Your task to perform on an android device: turn on priority inbox in the gmail app Image 0: 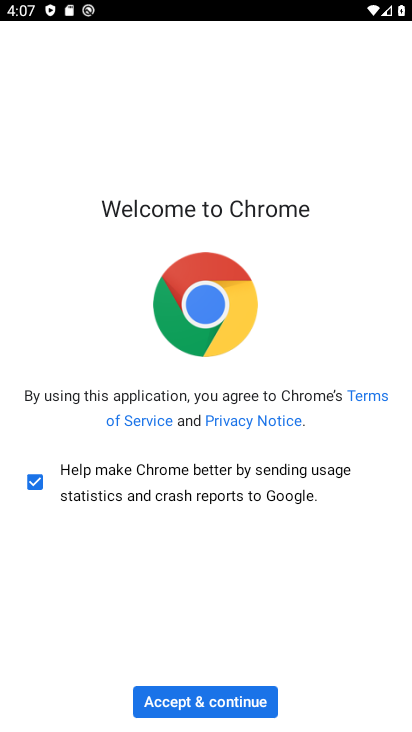
Step 0: press home button
Your task to perform on an android device: turn on priority inbox in the gmail app Image 1: 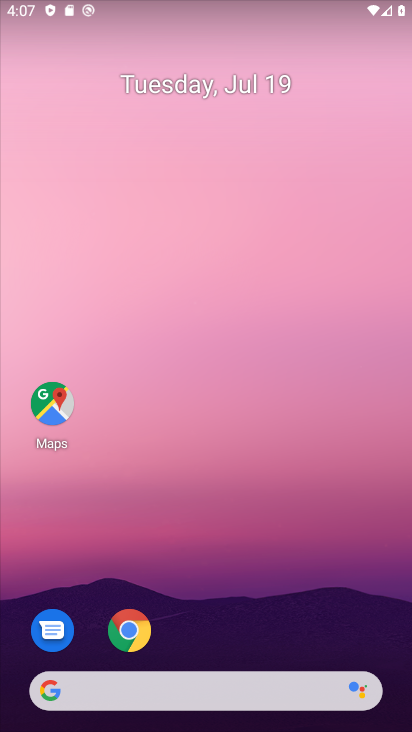
Step 1: click (194, 232)
Your task to perform on an android device: turn on priority inbox in the gmail app Image 2: 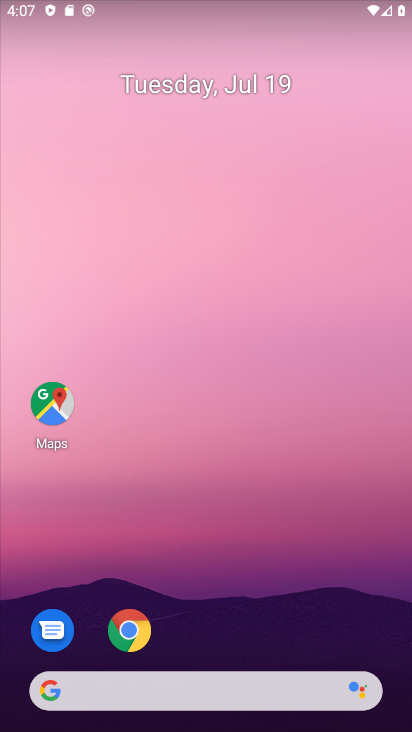
Step 2: drag from (199, 590) to (251, 20)
Your task to perform on an android device: turn on priority inbox in the gmail app Image 3: 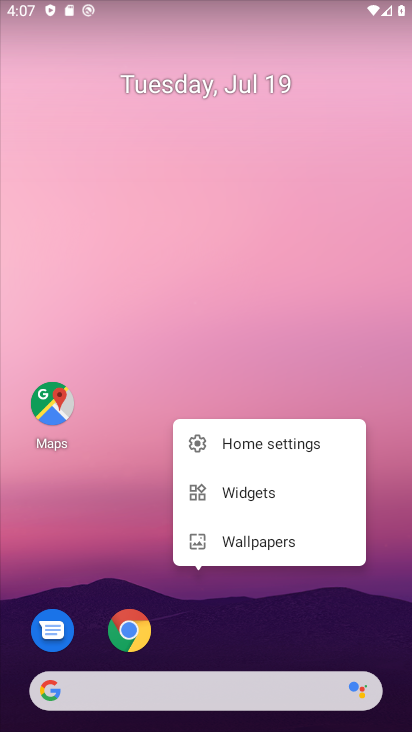
Step 3: click (203, 640)
Your task to perform on an android device: turn on priority inbox in the gmail app Image 4: 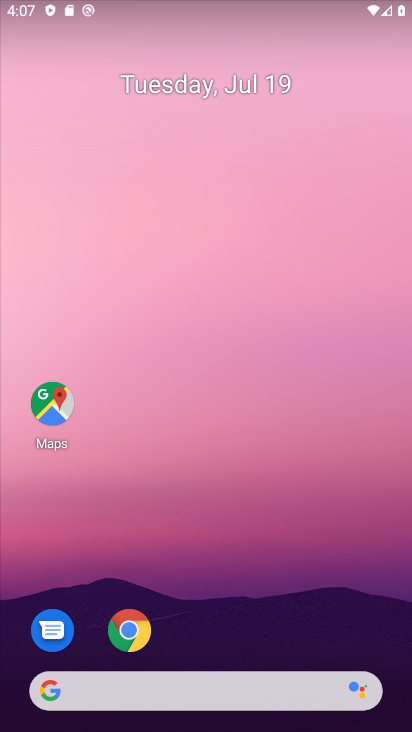
Step 4: drag from (203, 627) to (183, 294)
Your task to perform on an android device: turn on priority inbox in the gmail app Image 5: 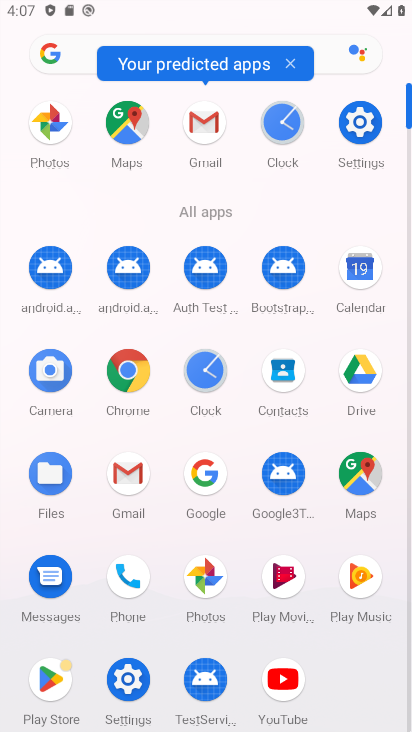
Step 5: click (124, 477)
Your task to perform on an android device: turn on priority inbox in the gmail app Image 6: 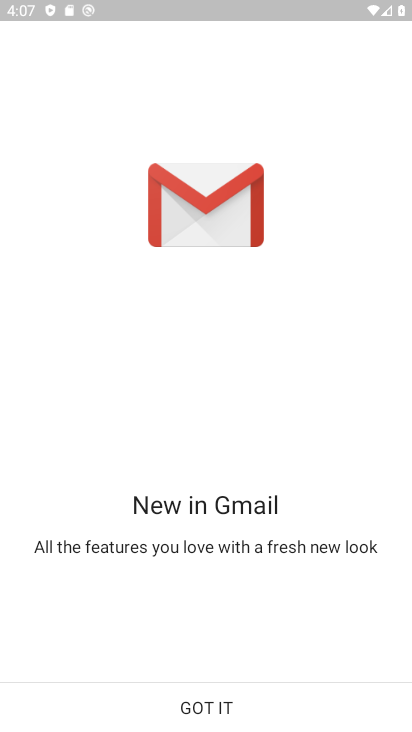
Step 6: click (191, 702)
Your task to perform on an android device: turn on priority inbox in the gmail app Image 7: 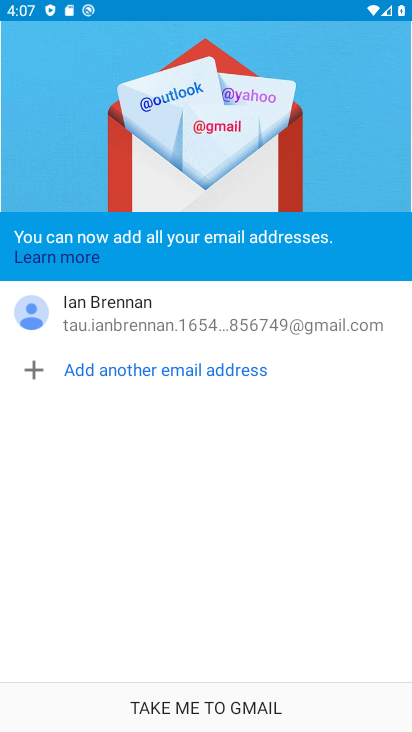
Step 7: click (191, 702)
Your task to perform on an android device: turn on priority inbox in the gmail app Image 8: 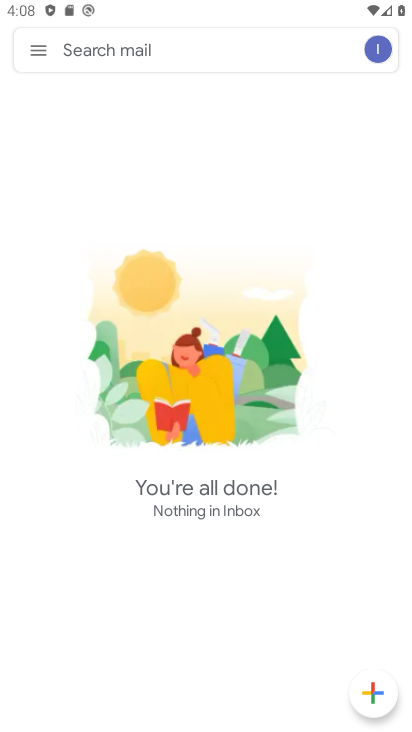
Step 8: click (37, 53)
Your task to perform on an android device: turn on priority inbox in the gmail app Image 9: 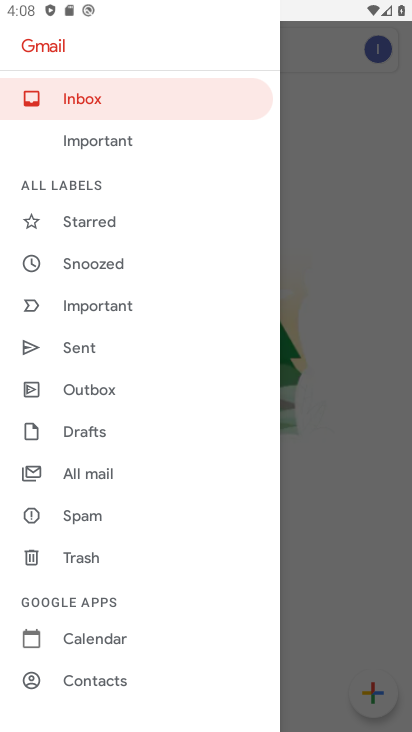
Step 9: drag from (152, 509) to (142, 285)
Your task to perform on an android device: turn on priority inbox in the gmail app Image 10: 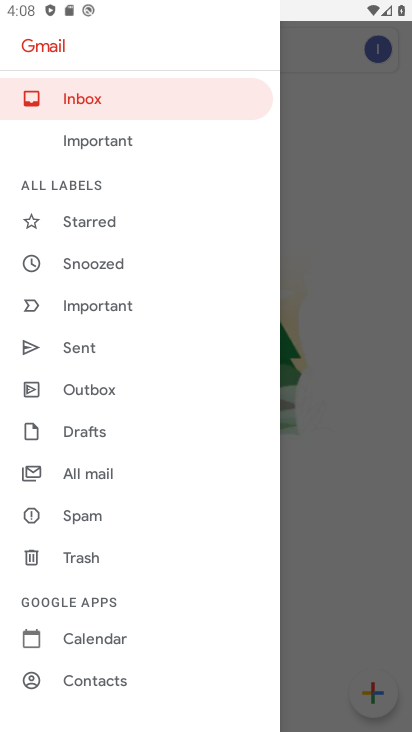
Step 10: drag from (86, 575) to (86, 211)
Your task to perform on an android device: turn on priority inbox in the gmail app Image 11: 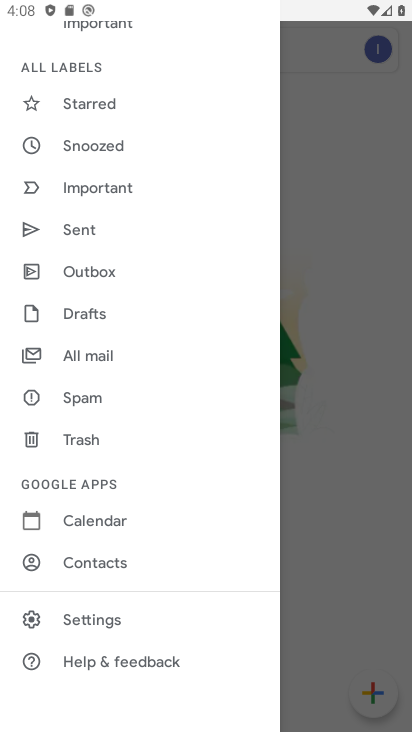
Step 11: click (86, 618)
Your task to perform on an android device: turn on priority inbox in the gmail app Image 12: 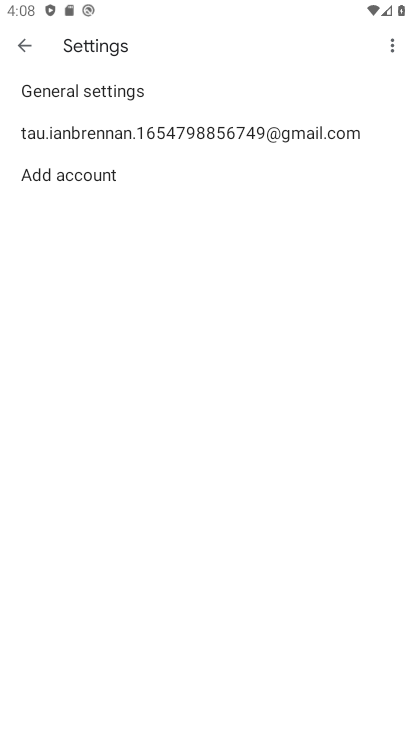
Step 12: click (173, 135)
Your task to perform on an android device: turn on priority inbox in the gmail app Image 13: 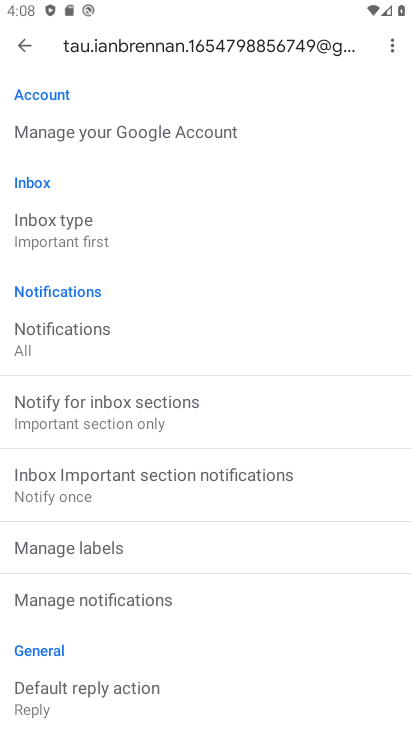
Step 13: drag from (143, 482) to (170, 355)
Your task to perform on an android device: turn on priority inbox in the gmail app Image 14: 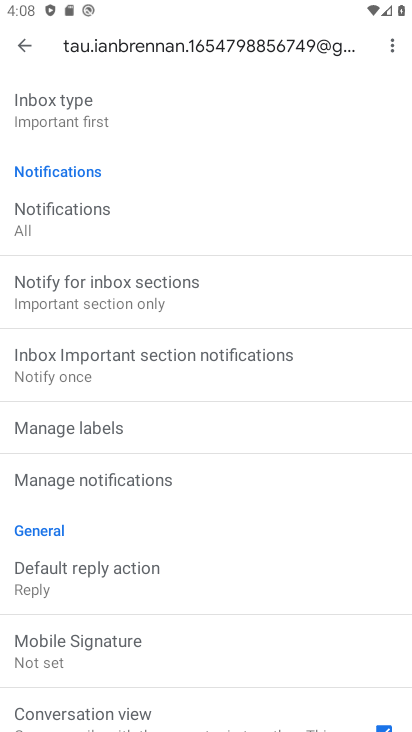
Step 14: drag from (181, 607) to (200, 112)
Your task to perform on an android device: turn on priority inbox in the gmail app Image 15: 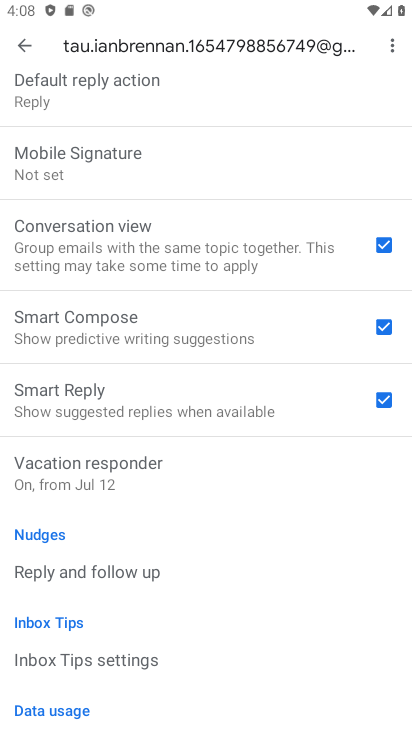
Step 15: drag from (190, 155) to (150, 494)
Your task to perform on an android device: turn on priority inbox in the gmail app Image 16: 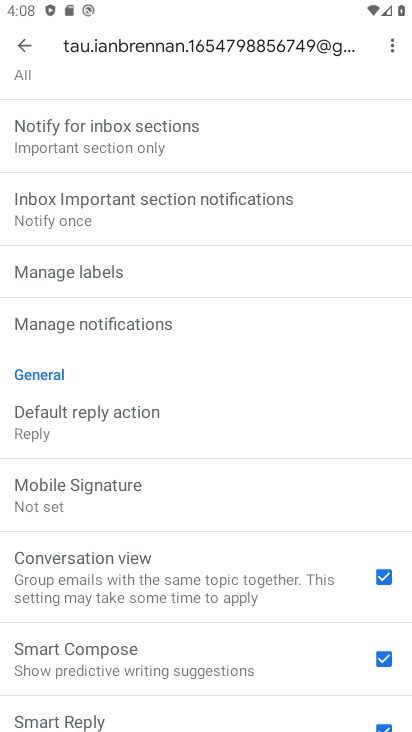
Step 16: drag from (139, 313) to (98, 559)
Your task to perform on an android device: turn on priority inbox in the gmail app Image 17: 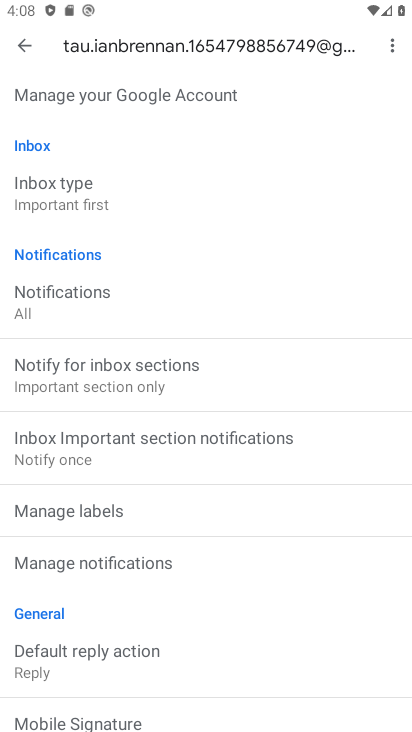
Step 17: click (53, 202)
Your task to perform on an android device: turn on priority inbox in the gmail app Image 18: 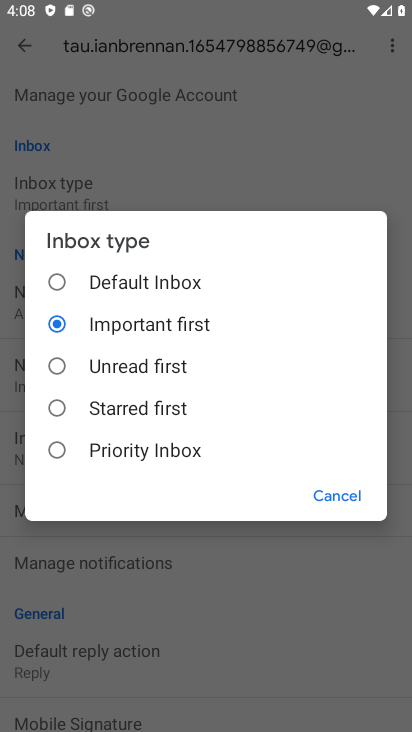
Step 18: click (61, 450)
Your task to perform on an android device: turn on priority inbox in the gmail app Image 19: 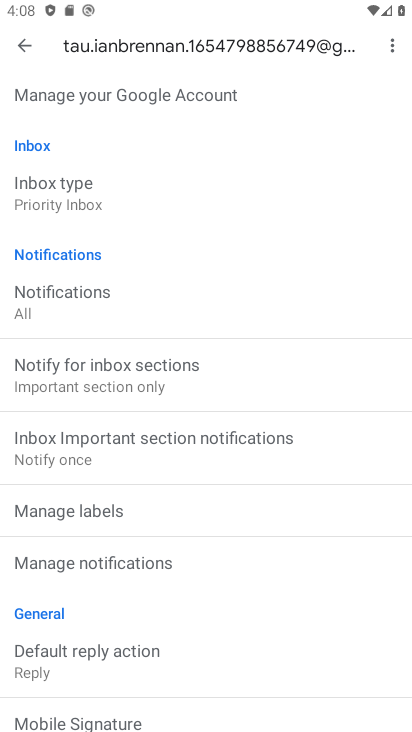
Step 19: task complete